Your task to perform on an android device: Go to CNN.com Image 0: 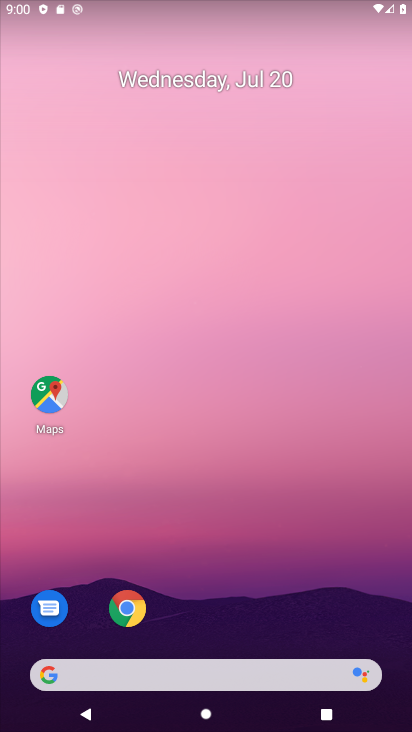
Step 0: drag from (250, 605) to (158, 299)
Your task to perform on an android device: Go to CNN.com Image 1: 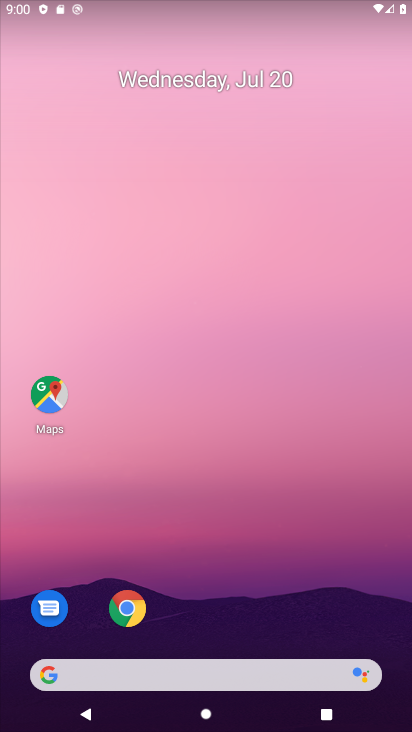
Step 1: drag from (264, 630) to (197, 204)
Your task to perform on an android device: Go to CNN.com Image 2: 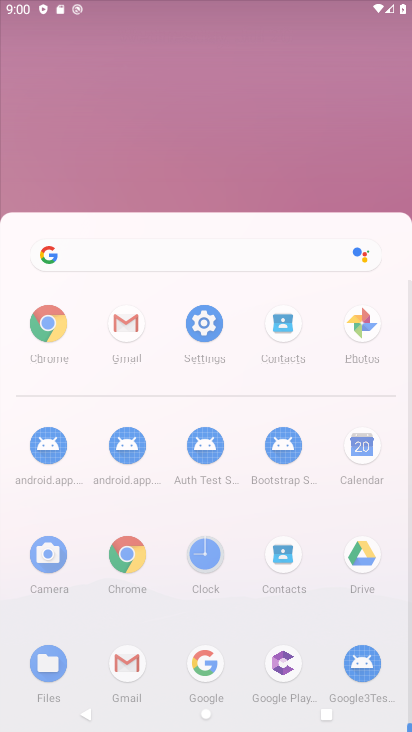
Step 2: drag from (229, 697) to (168, 262)
Your task to perform on an android device: Go to CNN.com Image 3: 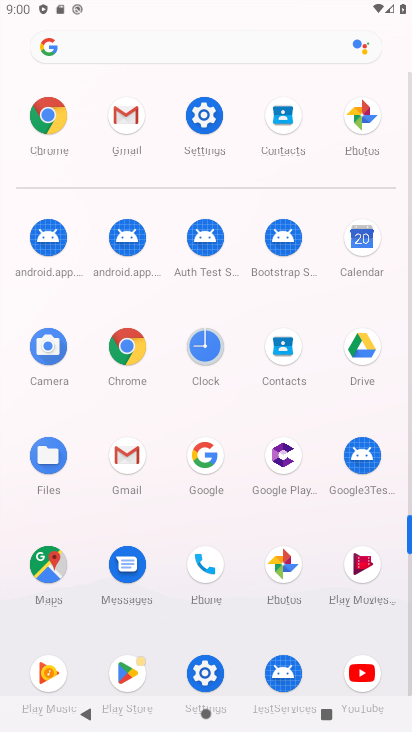
Step 3: drag from (235, 645) to (239, 303)
Your task to perform on an android device: Go to CNN.com Image 4: 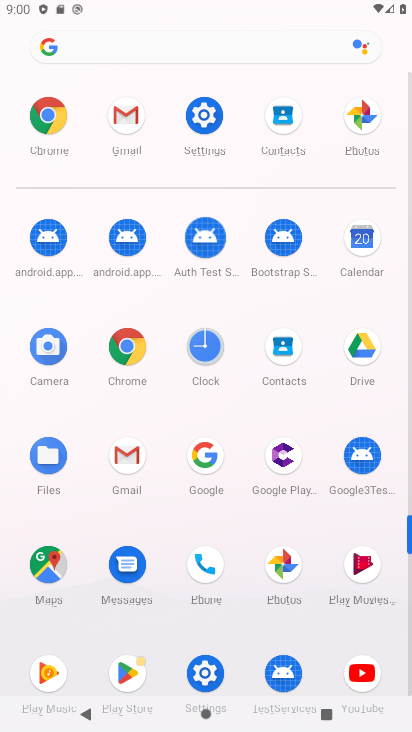
Step 4: click (194, 115)
Your task to perform on an android device: Go to CNN.com Image 5: 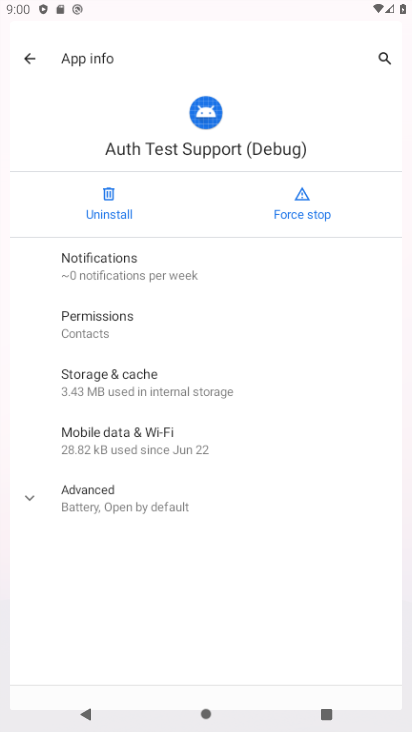
Step 5: click (205, 117)
Your task to perform on an android device: Go to CNN.com Image 6: 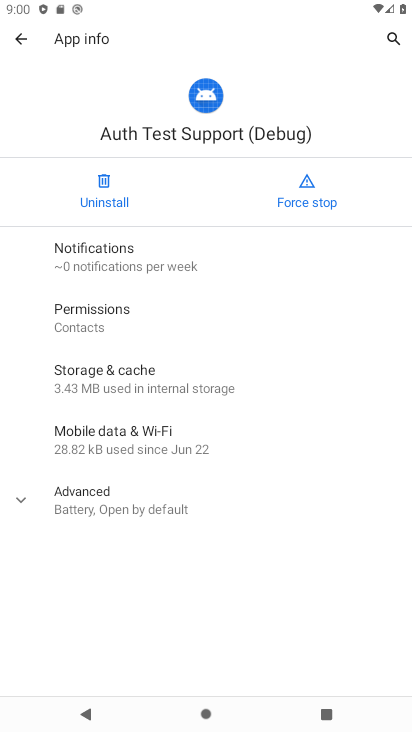
Step 6: click (205, 117)
Your task to perform on an android device: Go to CNN.com Image 7: 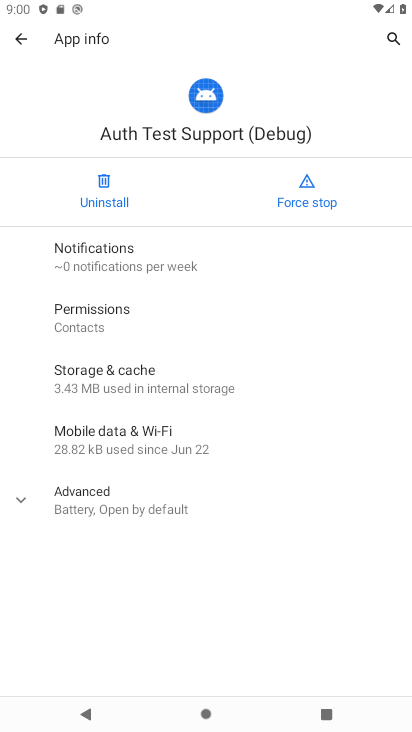
Step 7: click (206, 117)
Your task to perform on an android device: Go to CNN.com Image 8: 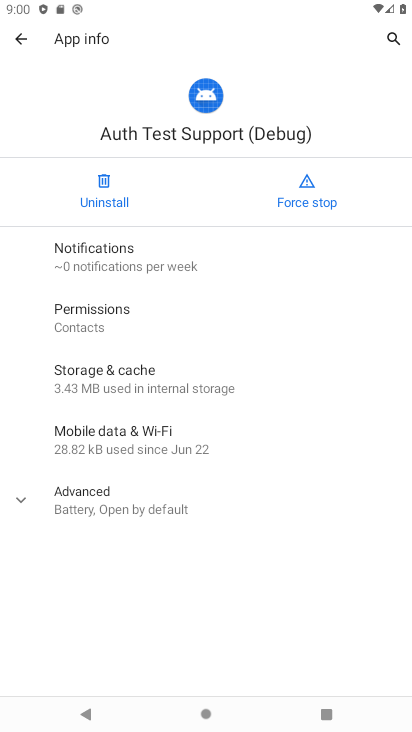
Step 8: click (19, 46)
Your task to perform on an android device: Go to CNN.com Image 9: 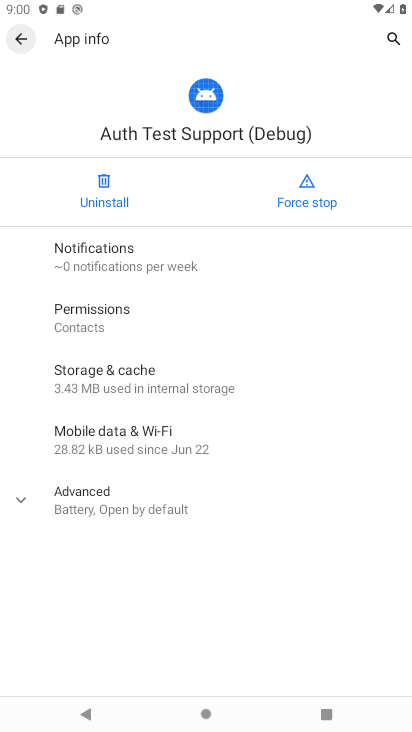
Step 9: click (23, 38)
Your task to perform on an android device: Go to CNN.com Image 10: 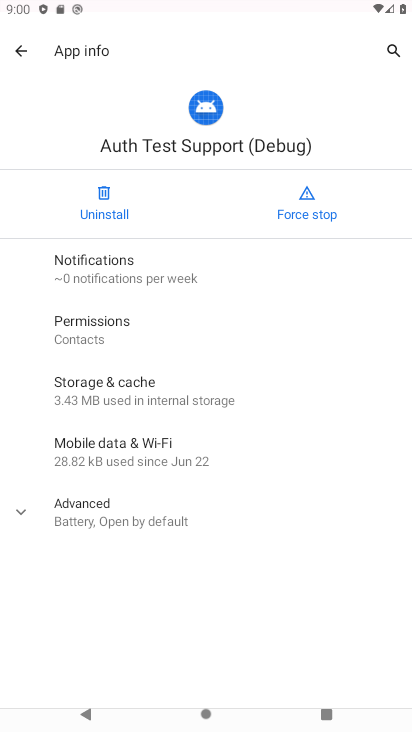
Step 10: click (23, 38)
Your task to perform on an android device: Go to CNN.com Image 11: 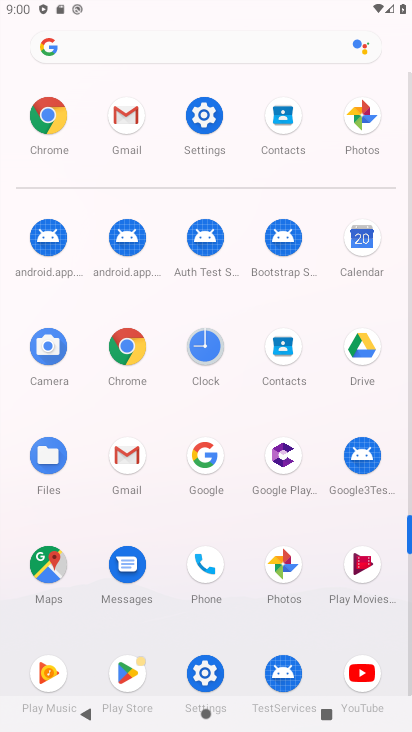
Step 11: click (140, 339)
Your task to perform on an android device: Go to CNN.com Image 12: 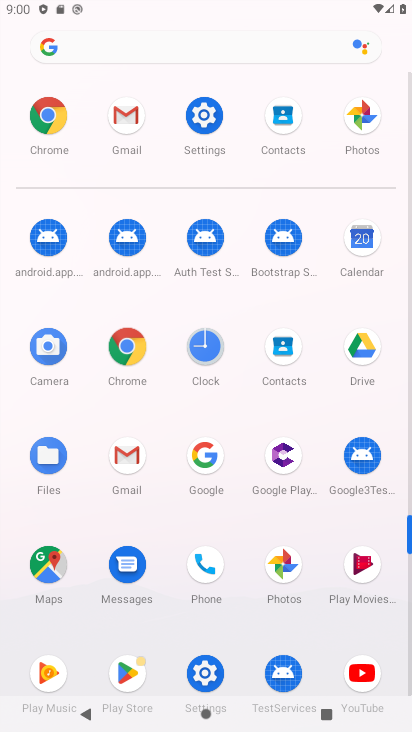
Step 12: click (146, 342)
Your task to perform on an android device: Go to CNN.com Image 13: 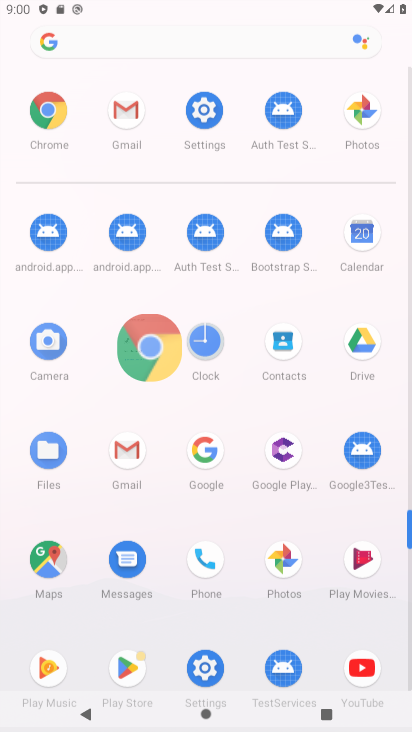
Step 13: click (148, 344)
Your task to perform on an android device: Go to CNN.com Image 14: 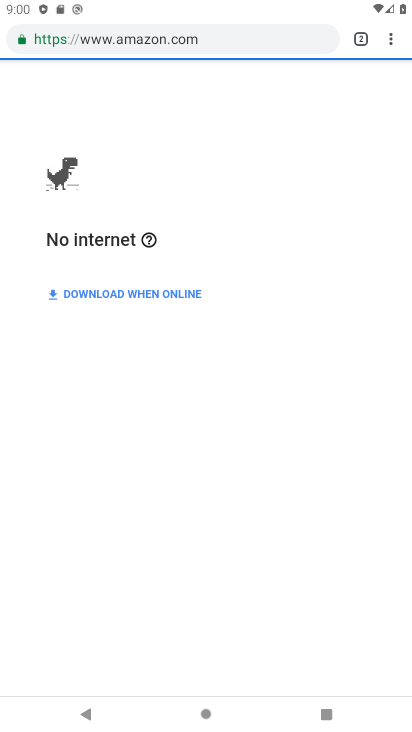
Step 14: drag from (385, 32) to (247, 86)
Your task to perform on an android device: Go to CNN.com Image 15: 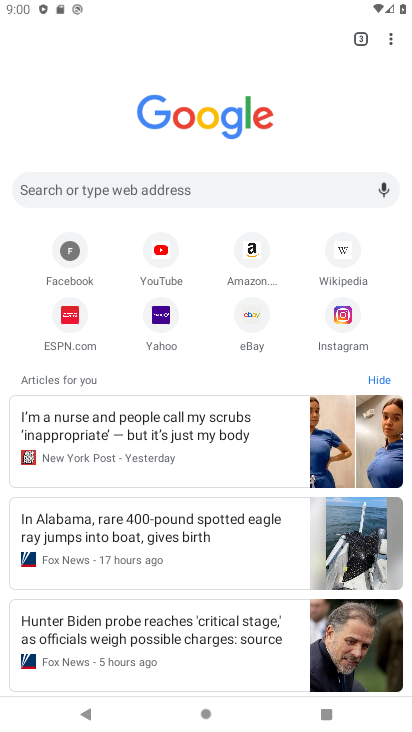
Step 15: click (111, 179)
Your task to perform on an android device: Go to CNN.com Image 16: 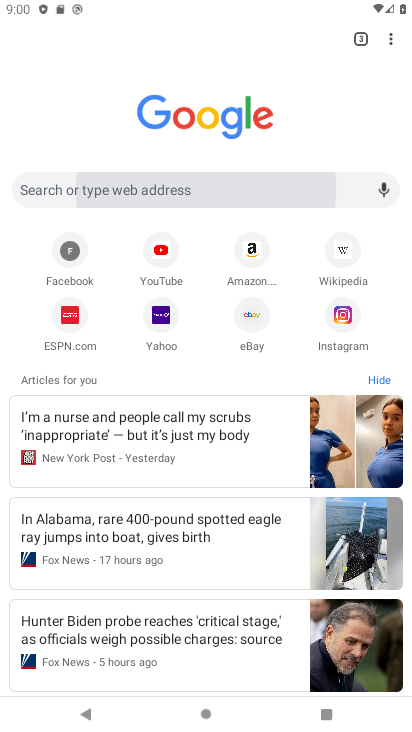
Step 16: click (110, 183)
Your task to perform on an android device: Go to CNN.com Image 17: 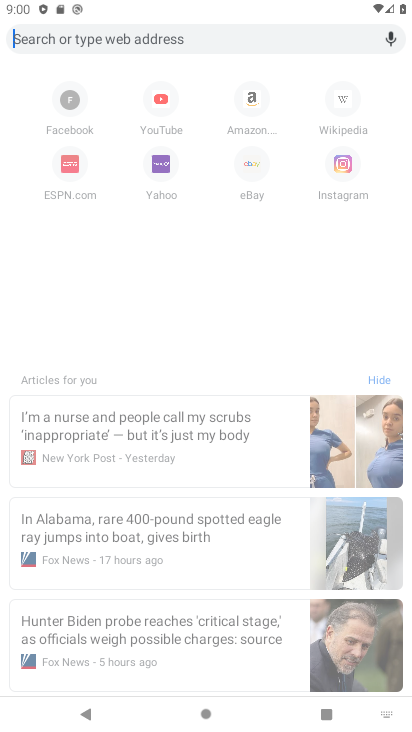
Step 17: click (111, 184)
Your task to perform on an android device: Go to CNN.com Image 18: 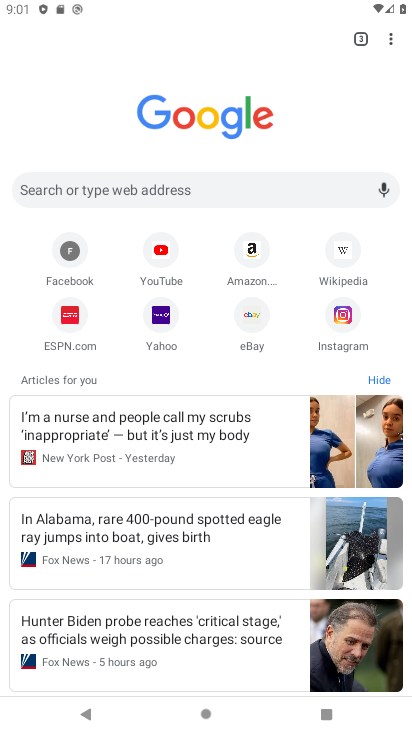
Step 18: type "CNN.com"
Your task to perform on an android device: Go to CNN.com Image 19: 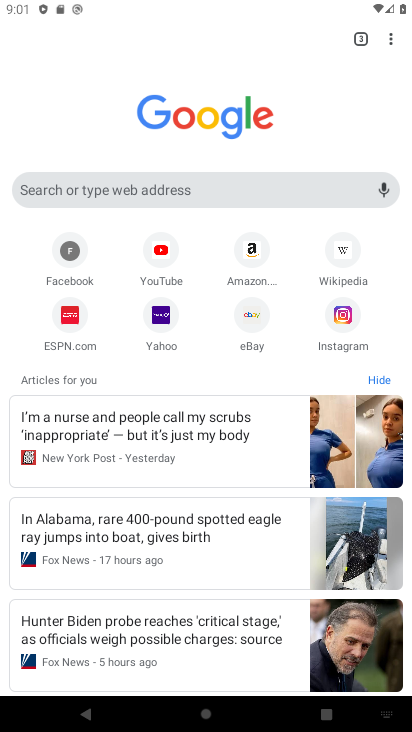
Step 19: task complete